Your task to perform on an android device: Open the Play Movies app and select the watchlist tab. Image 0: 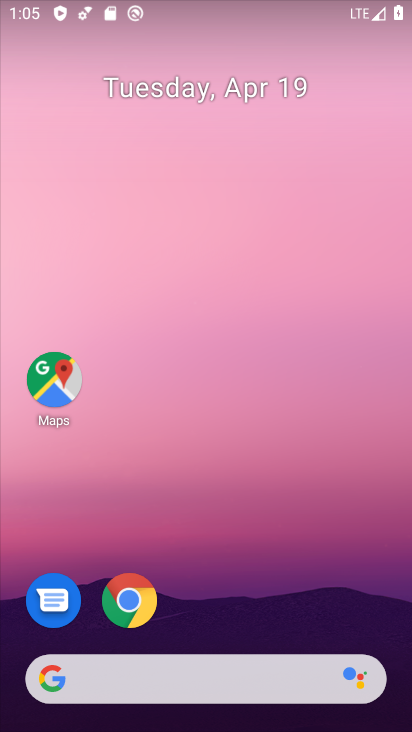
Step 0: drag from (208, 529) to (178, 208)
Your task to perform on an android device: Open the Play Movies app and select the watchlist tab. Image 1: 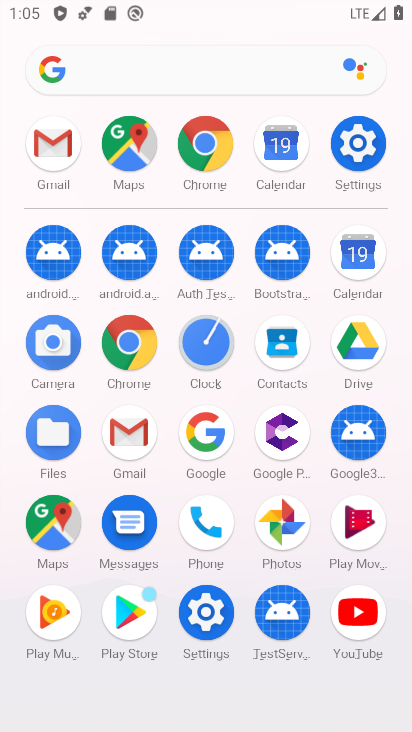
Step 1: click (364, 530)
Your task to perform on an android device: Open the Play Movies app and select the watchlist tab. Image 2: 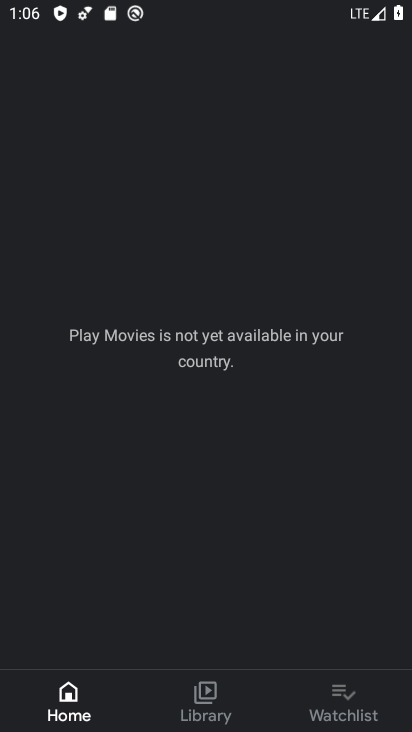
Step 2: click (351, 693)
Your task to perform on an android device: Open the Play Movies app and select the watchlist tab. Image 3: 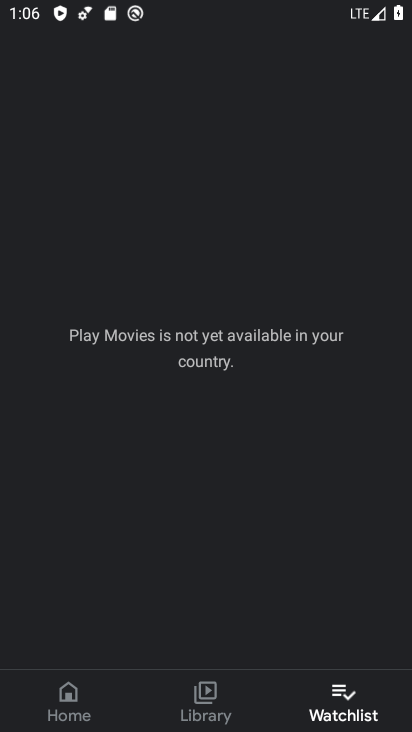
Step 3: click (353, 704)
Your task to perform on an android device: Open the Play Movies app and select the watchlist tab. Image 4: 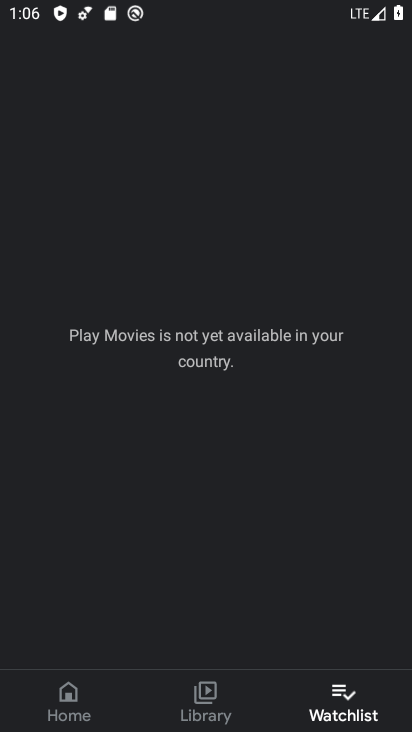
Step 4: task complete